Your task to perform on an android device: see creations saved in the google photos Image 0: 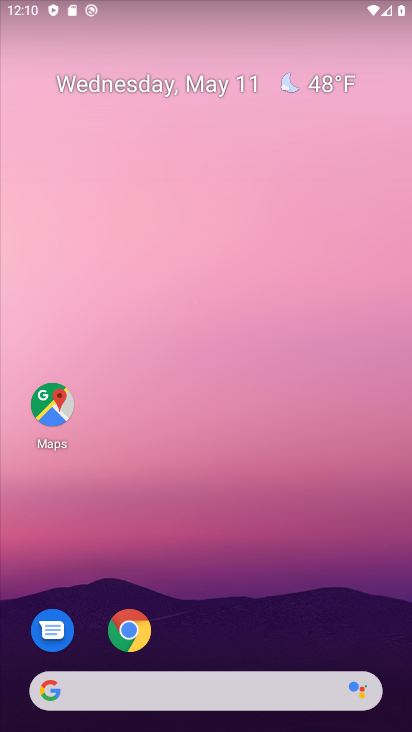
Step 0: drag from (195, 657) to (145, 23)
Your task to perform on an android device: see creations saved in the google photos Image 1: 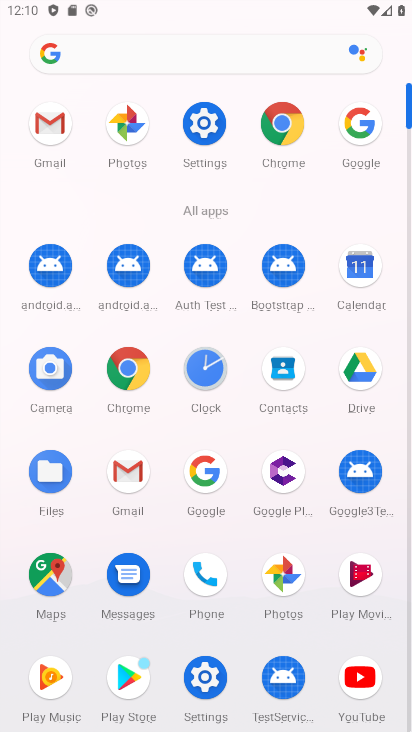
Step 1: click (278, 591)
Your task to perform on an android device: see creations saved in the google photos Image 2: 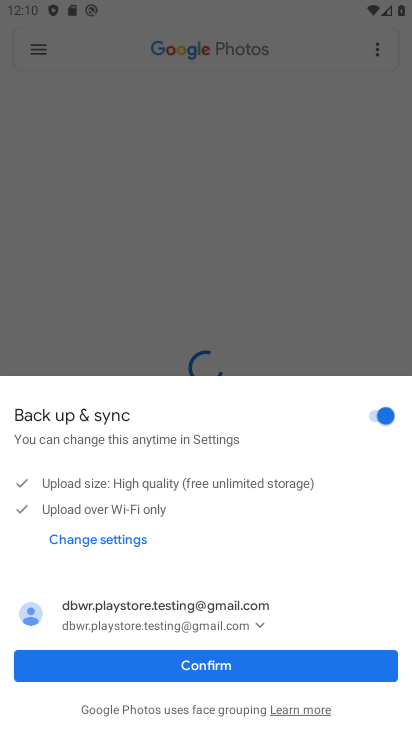
Step 2: click (212, 660)
Your task to perform on an android device: see creations saved in the google photos Image 3: 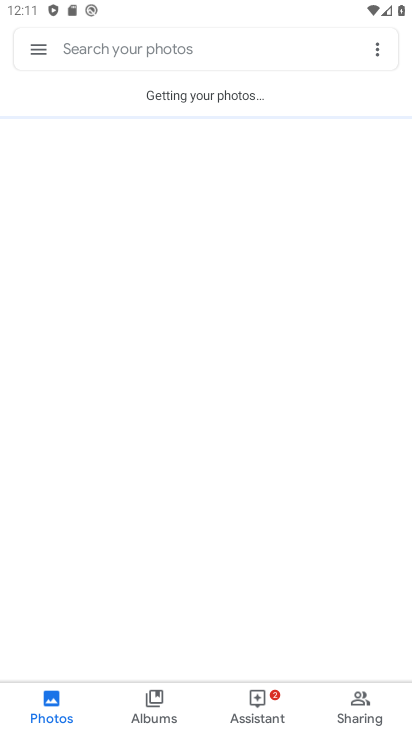
Step 3: click (102, 44)
Your task to perform on an android device: see creations saved in the google photos Image 4: 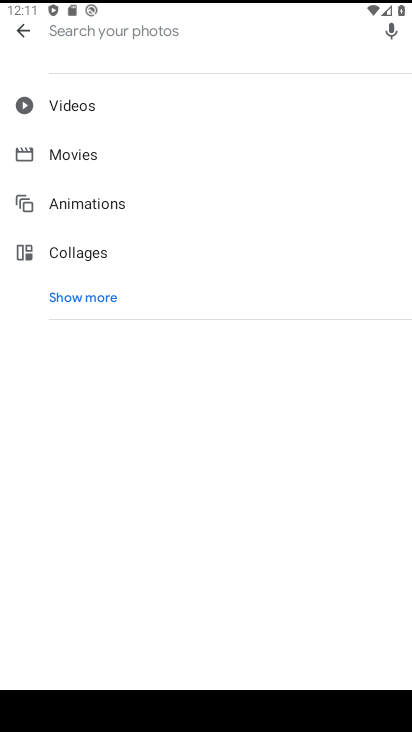
Step 4: click (73, 307)
Your task to perform on an android device: see creations saved in the google photos Image 5: 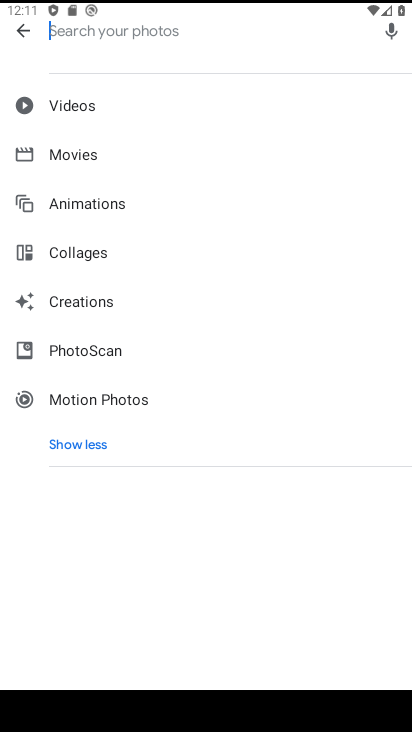
Step 5: click (75, 301)
Your task to perform on an android device: see creations saved in the google photos Image 6: 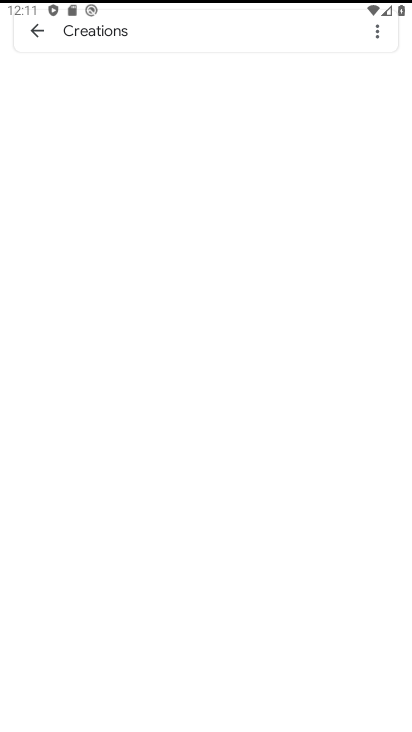
Step 6: task complete